Your task to perform on an android device: See recent photos Image 0: 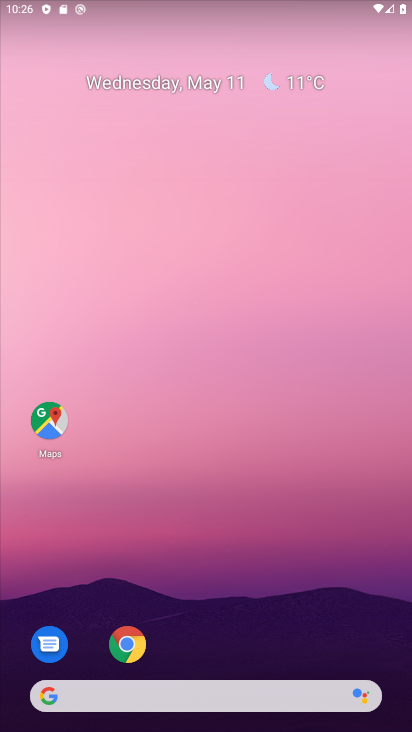
Step 0: drag from (219, 657) to (238, 129)
Your task to perform on an android device: See recent photos Image 1: 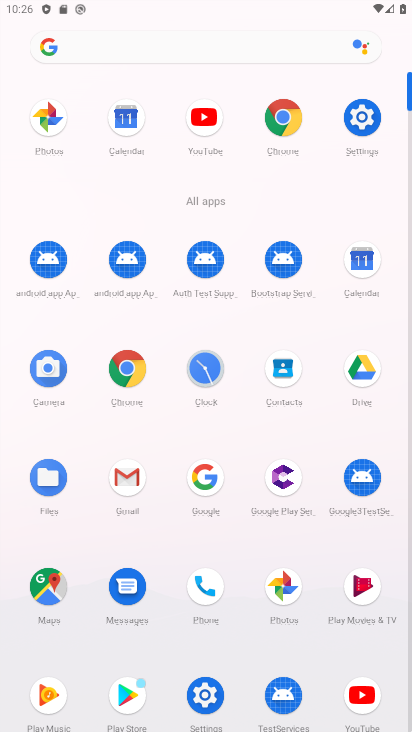
Step 1: click (44, 119)
Your task to perform on an android device: See recent photos Image 2: 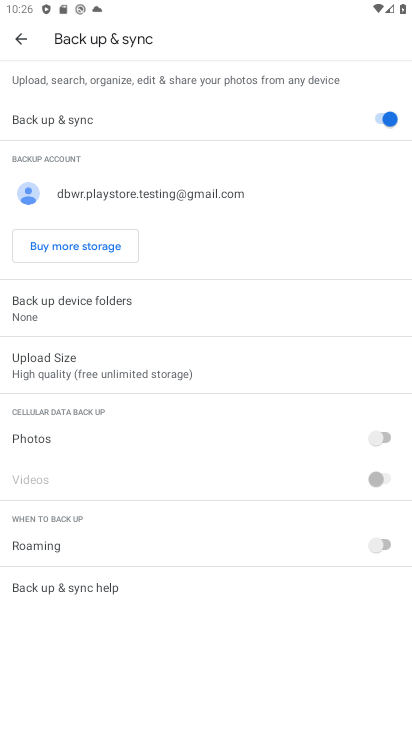
Step 2: click (19, 41)
Your task to perform on an android device: See recent photos Image 3: 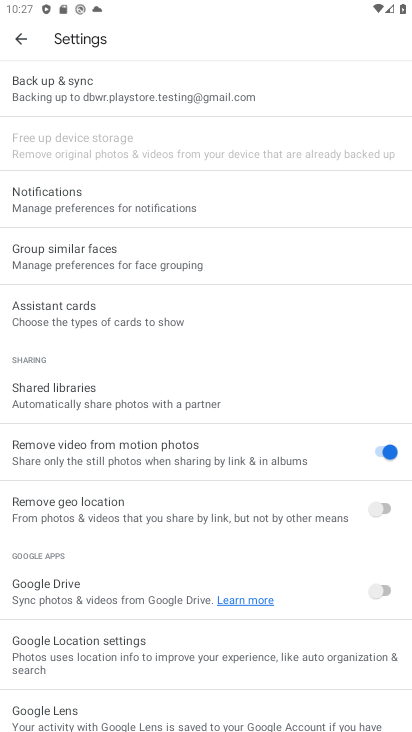
Step 3: click (11, 37)
Your task to perform on an android device: See recent photos Image 4: 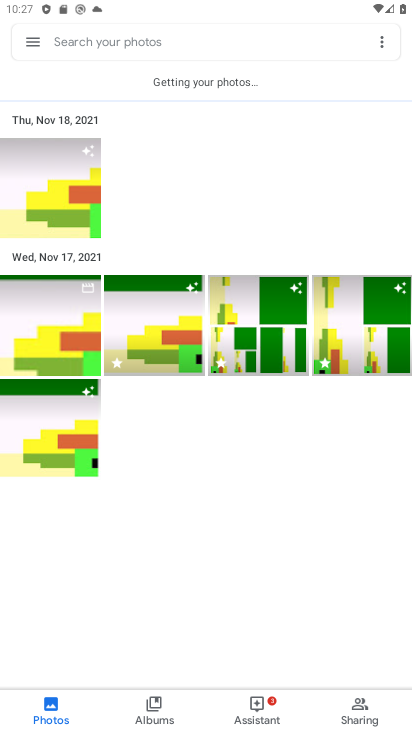
Step 4: task complete